Your task to perform on an android device: Open CNN.com Image 0: 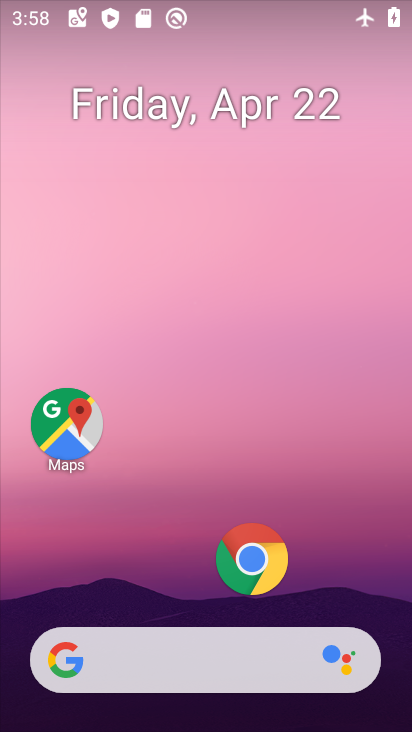
Step 0: click (313, 23)
Your task to perform on an android device: Open CNN.com Image 1: 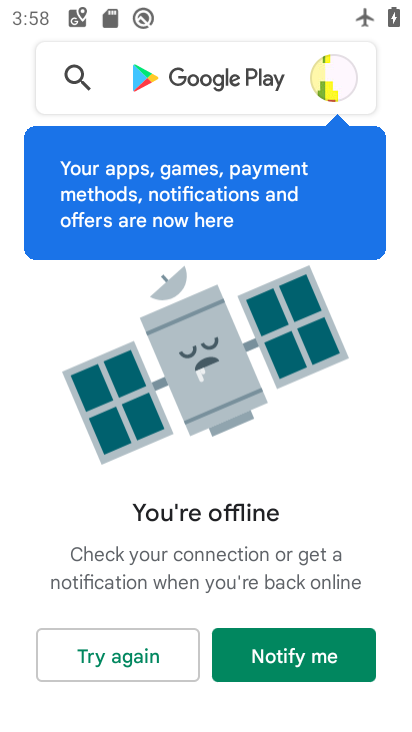
Step 1: press home button
Your task to perform on an android device: Open CNN.com Image 2: 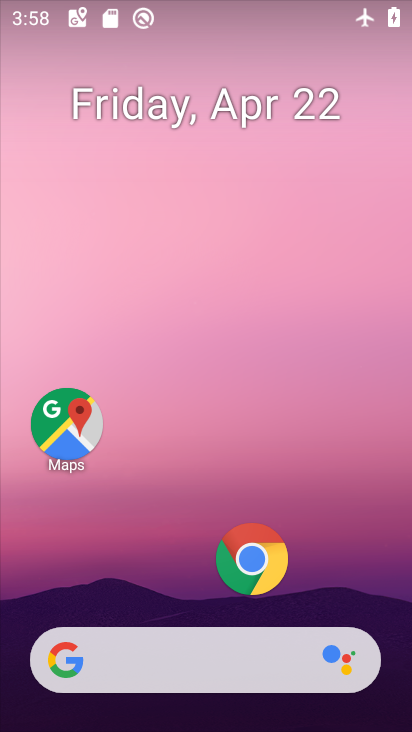
Step 2: click (259, 559)
Your task to perform on an android device: Open CNN.com Image 3: 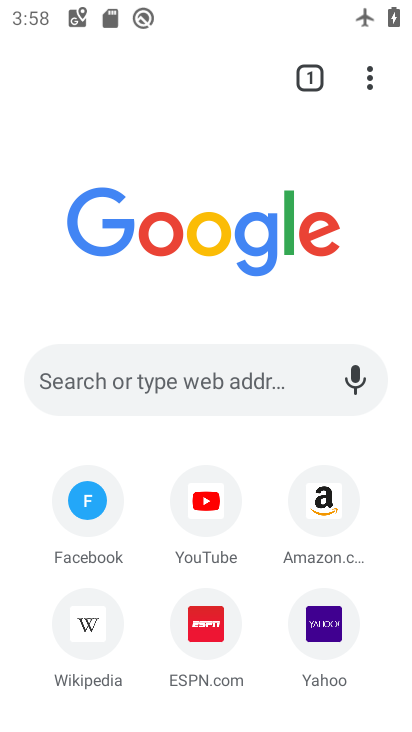
Step 3: click (158, 371)
Your task to perform on an android device: Open CNN.com Image 4: 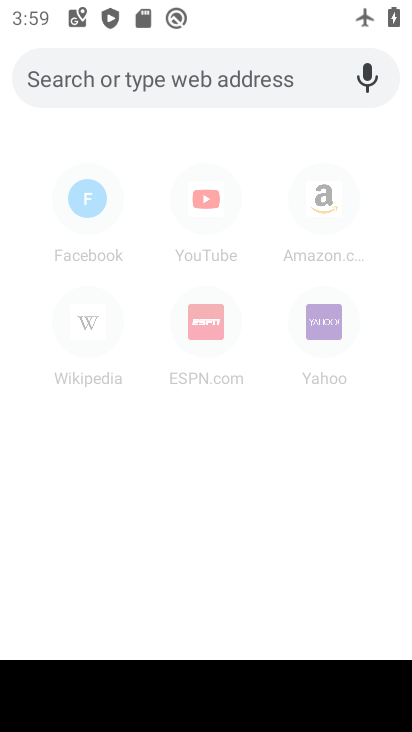
Step 4: type "CNN.com"
Your task to perform on an android device: Open CNN.com Image 5: 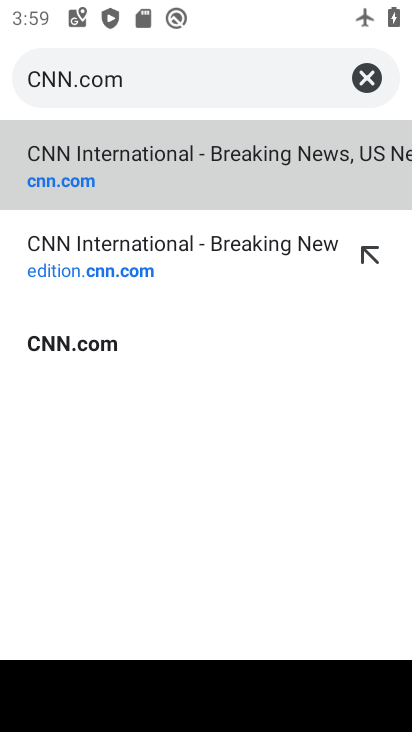
Step 5: click (151, 258)
Your task to perform on an android device: Open CNN.com Image 6: 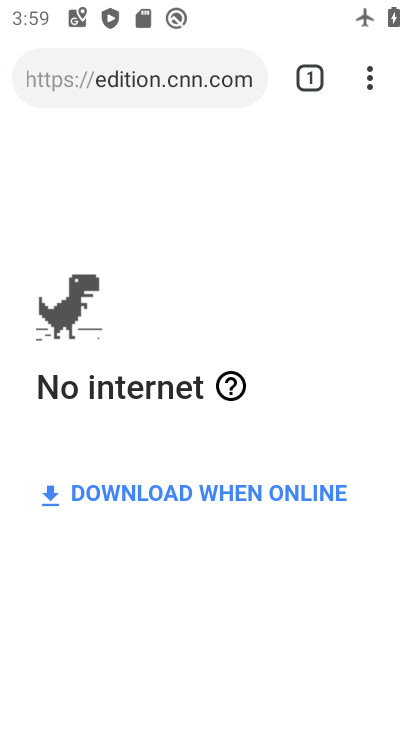
Step 6: task complete